Your task to perform on an android device: Go to wifi settings Image 0: 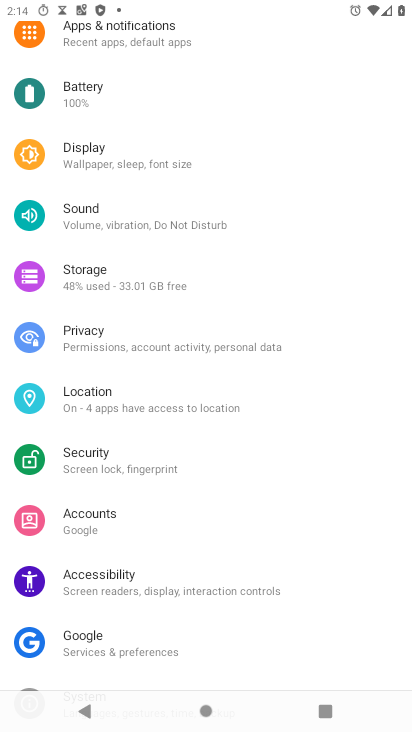
Step 0: press home button
Your task to perform on an android device: Go to wifi settings Image 1: 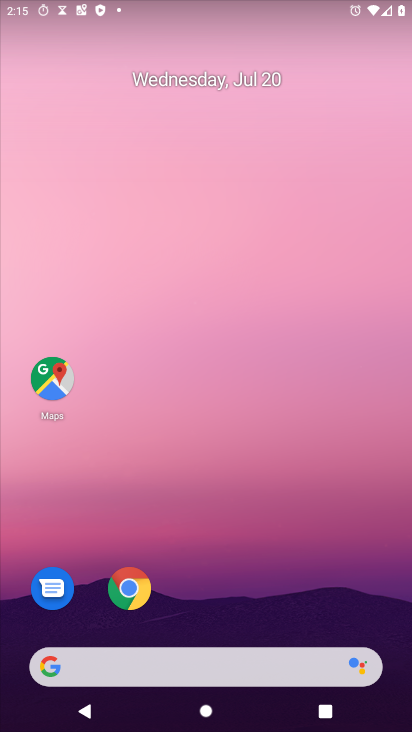
Step 1: drag from (225, 665) to (220, 37)
Your task to perform on an android device: Go to wifi settings Image 2: 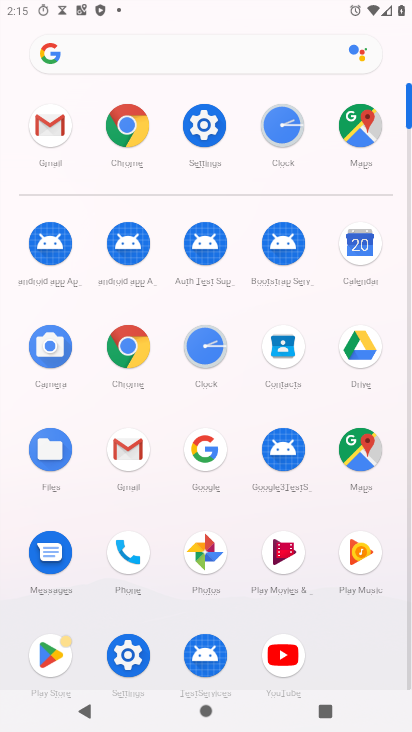
Step 2: click (193, 120)
Your task to perform on an android device: Go to wifi settings Image 3: 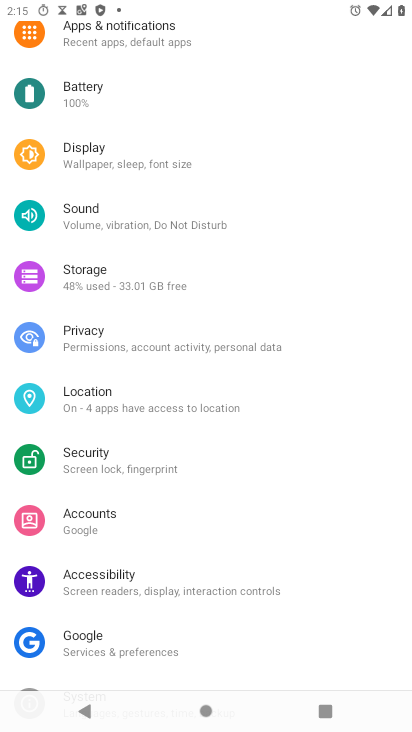
Step 3: drag from (215, 136) to (215, 641)
Your task to perform on an android device: Go to wifi settings Image 4: 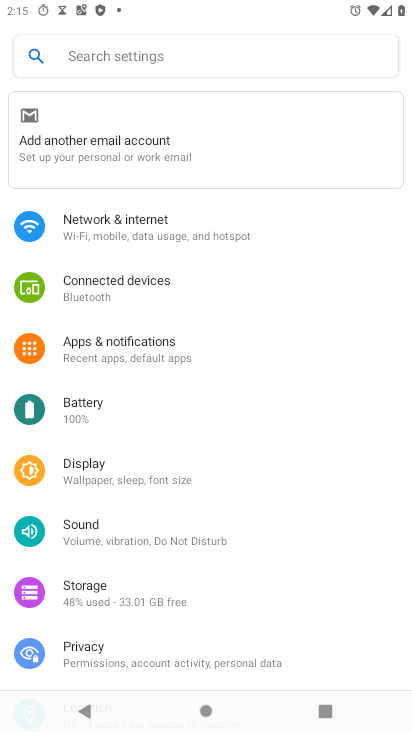
Step 4: click (109, 220)
Your task to perform on an android device: Go to wifi settings Image 5: 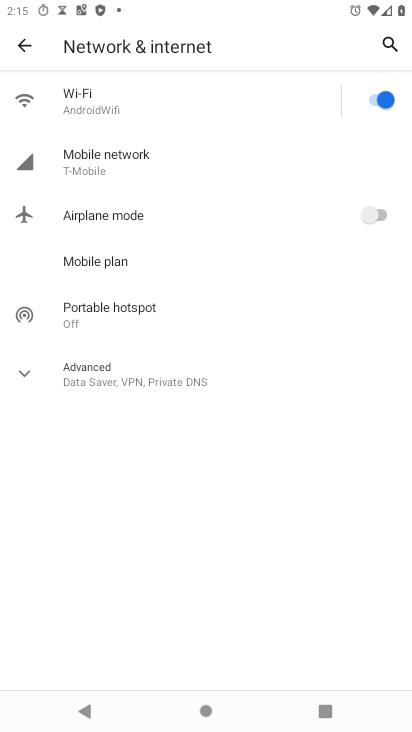
Step 5: task complete